Your task to perform on an android device: What's on my calendar today? Image 0: 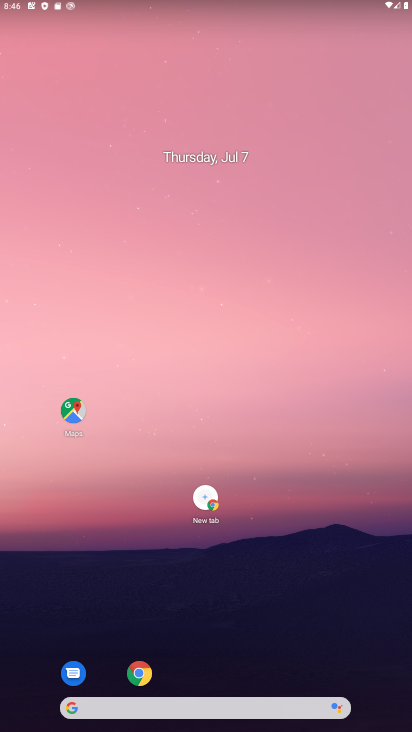
Step 0: press home button
Your task to perform on an android device: What's on my calendar today? Image 1: 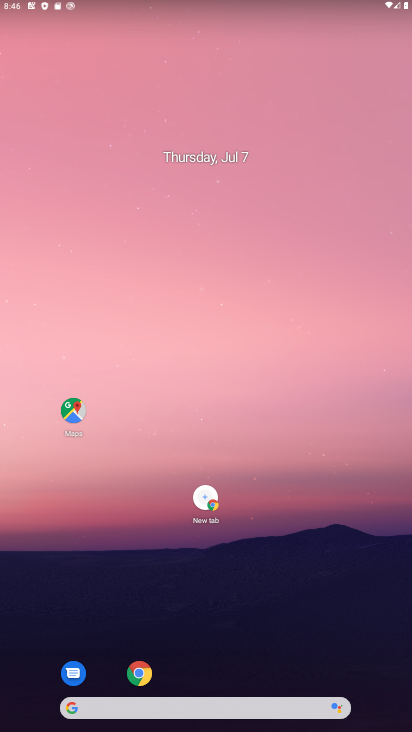
Step 1: drag from (260, 640) to (281, 39)
Your task to perform on an android device: What's on my calendar today? Image 2: 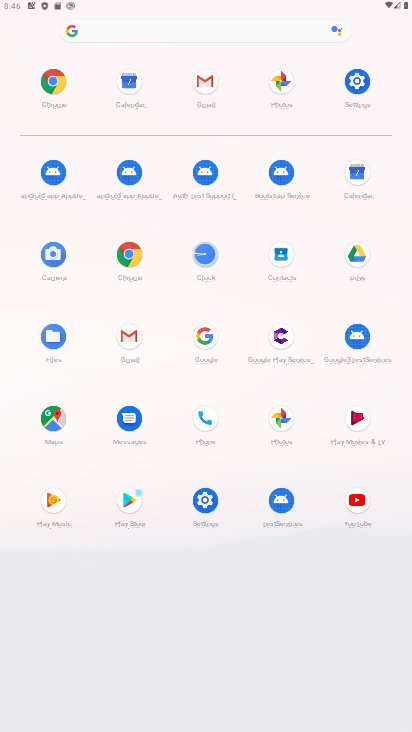
Step 2: click (352, 166)
Your task to perform on an android device: What's on my calendar today? Image 3: 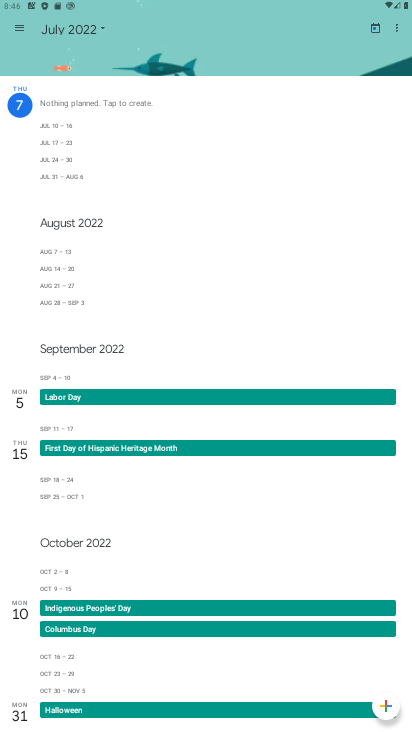
Step 3: click (100, 27)
Your task to perform on an android device: What's on my calendar today? Image 4: 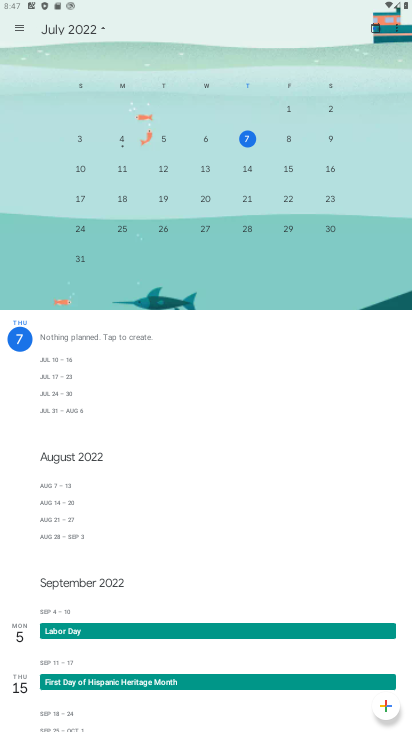
Step 4: click (245, 139)
Your task to perform on an android device: What's on my calendar today? Image 5: 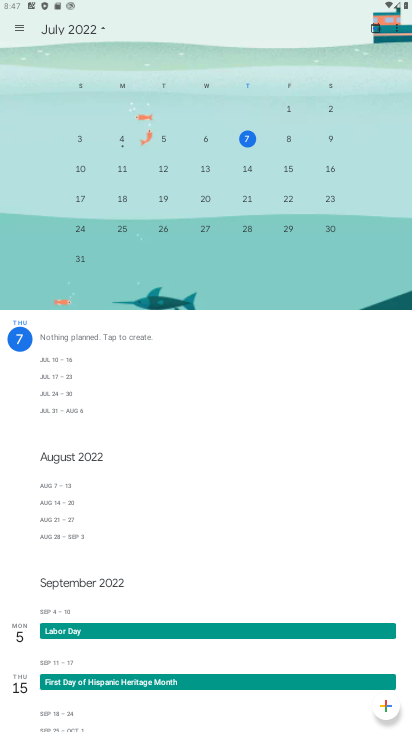
Step 5: task complete